Your task to perform on an android device: choose inbox layout in the gmail app Image 0: 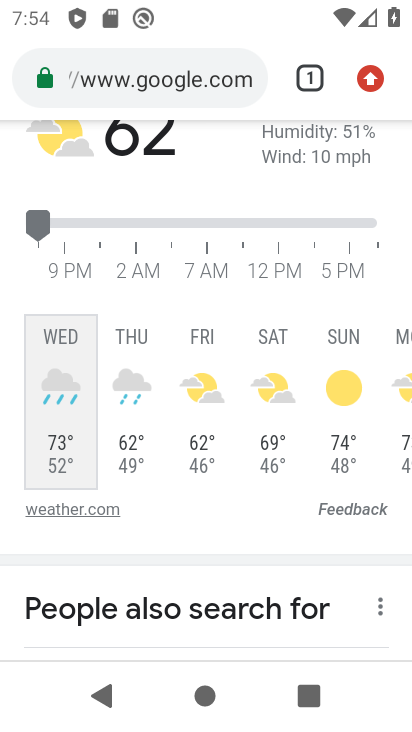
Step 0: press home button
Your task to perform on an android device: choose inbox layout in the gmail app Image 1: 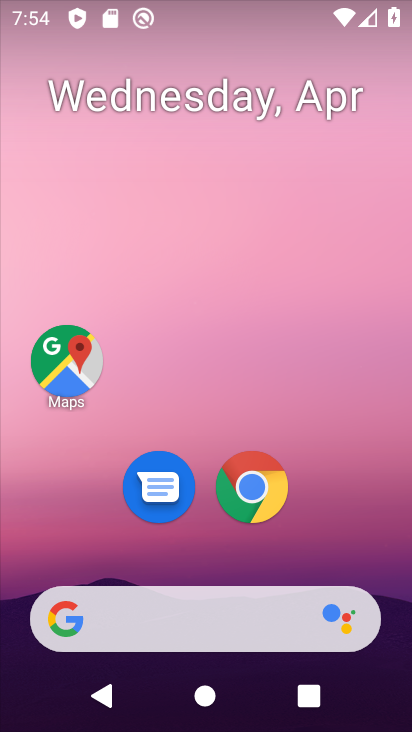
Step 1: drag from (318, 557) to (359, 109)
Your task to perform on an android device: choose inbox layout in the gmail app Image 2: 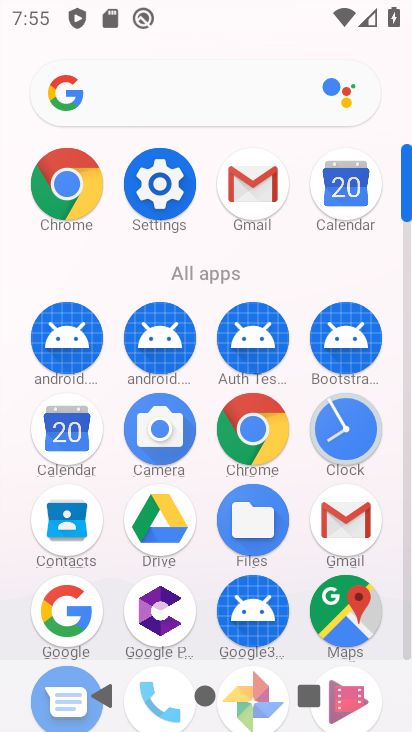
Step 2: click (356, 515)
Your task to perform on an android device: choose inbox layout in the gmail app Image 3: 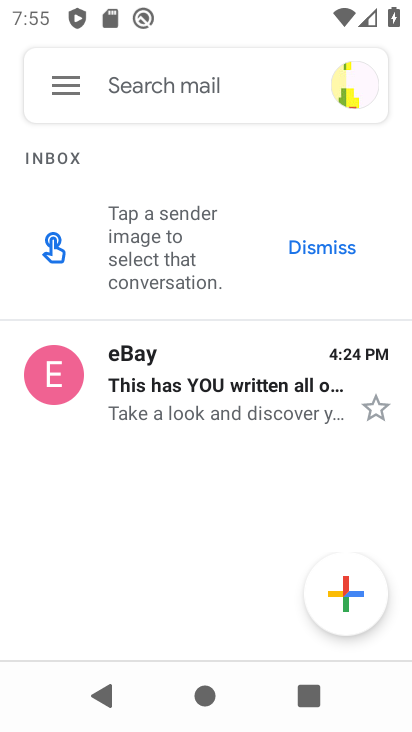
Step 3: click (66, 78)
Your task to perform on an android device: choose inbox layout in the gmail app Image 4: 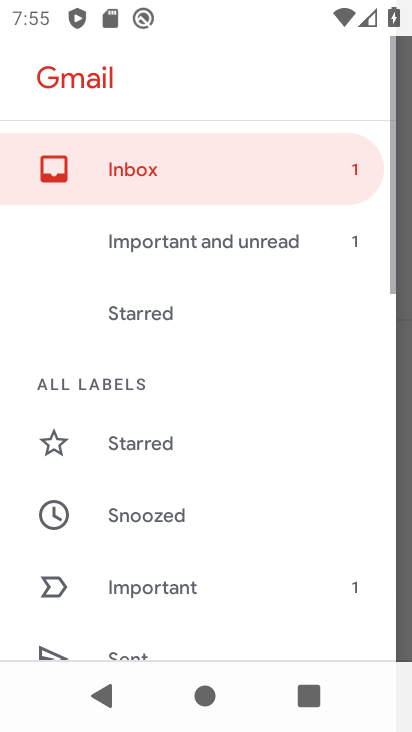
Step 4: drag from (233, 466) to (299, 167)
Your task to perform on an android device: choose inbox layout in the gmail app Image 5: 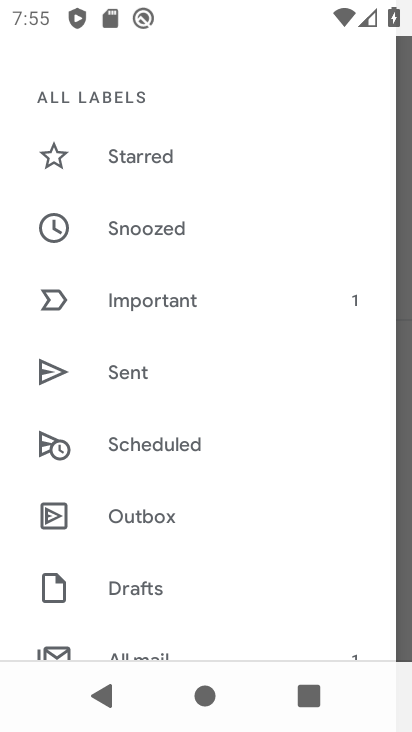
Step 5: drag from (195, 487) to (332, 153)
Your task to perform on an android device: choose inbox layout in the gmail app Image 6: 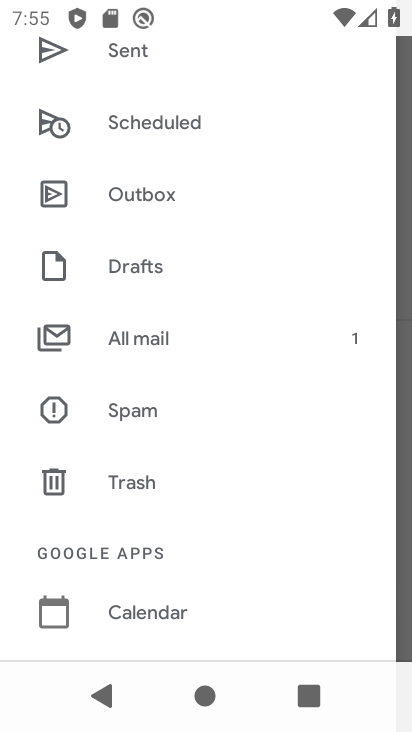
Step 6: drag from (201, 468) to (384, 191)
Your task to perform on an android device: choose inbox layout in the gmail app Image 7: 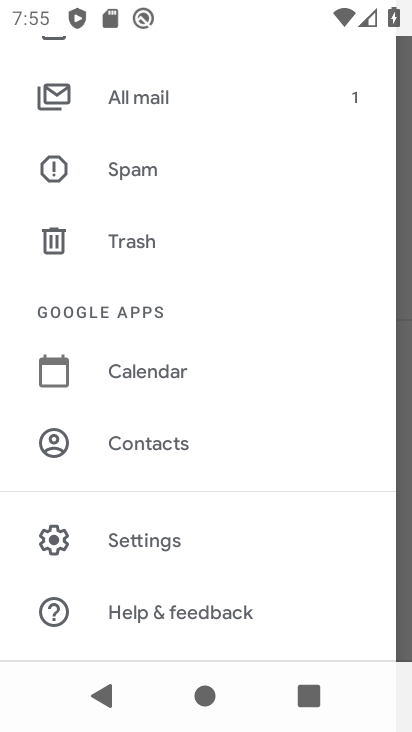
Step 7: click (157, 539)
Your task to perform on an android device: choose inbox layout in the gmail app Image 8: 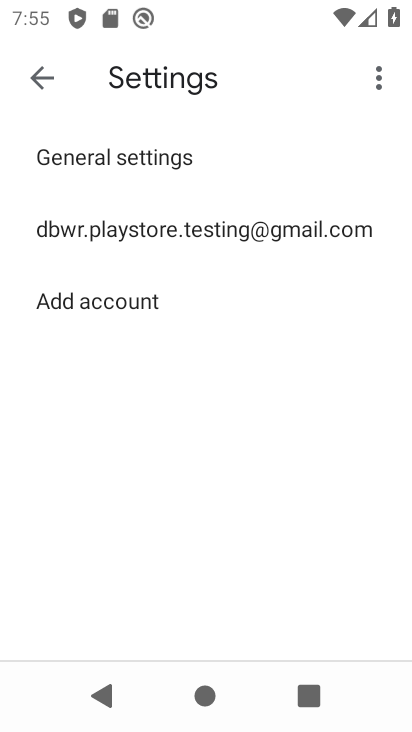
Step 8: click (266, 240)
Your task to perform on an android device: choose inbox layout in the gmail app Image 9: 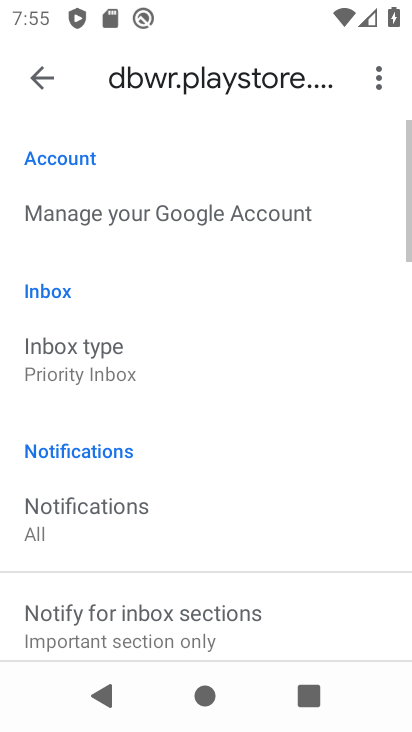
Step 9: drag from (207, 484) to (269, 286)
Your task to perform on an android device: choose inbox layout in the gmail app Image 10: 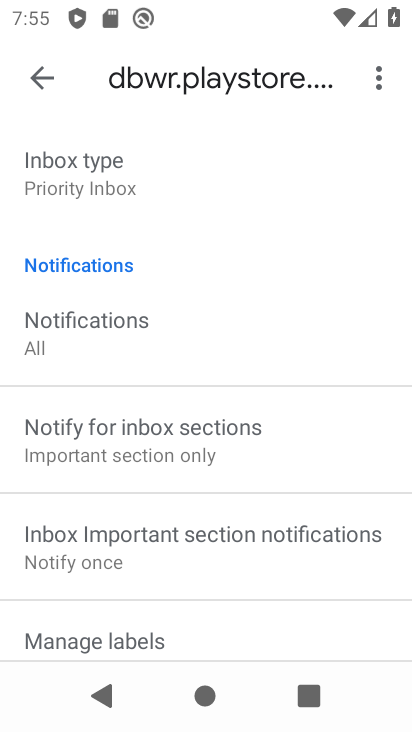
Step 10: click (123, 189)
Your task to perform on an android device: choose inbox layout in the gmail app Image 11: 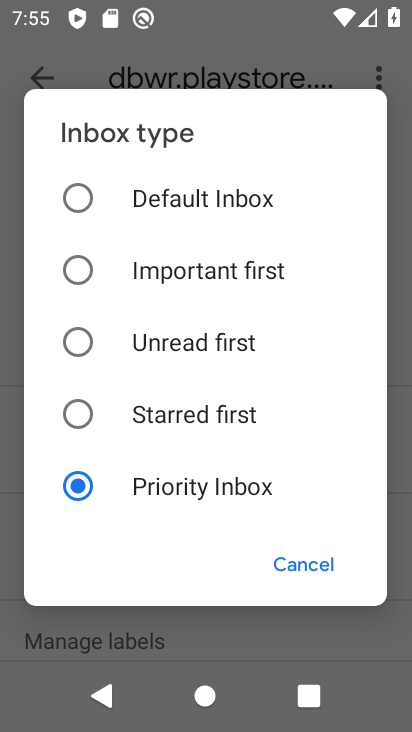
Step 11: task complete